Your task to perform on an android device: toggle javascript in the chrome app Image 0: 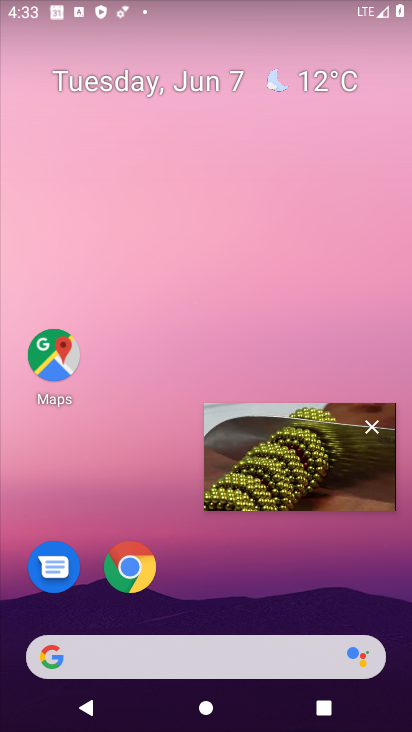
Step 0: click (369, 430)
Your task to perform on an android device: toggle javascript in the chrome app Image 1: 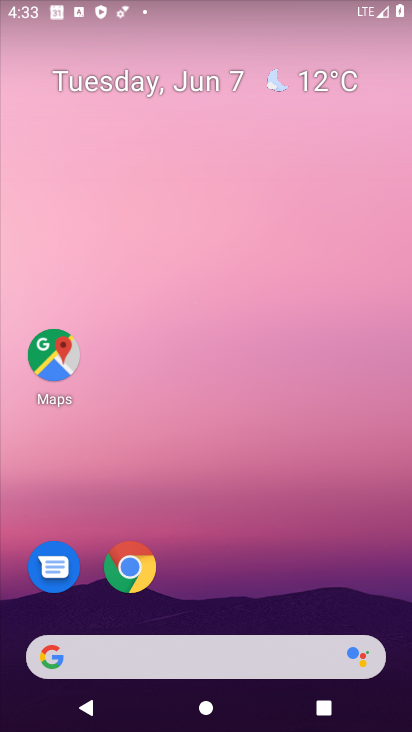
Step 1: drag from (318, 642) to (318, 45)
Your task to perform on an android device: toggle javascript in the chrome app Image 2: 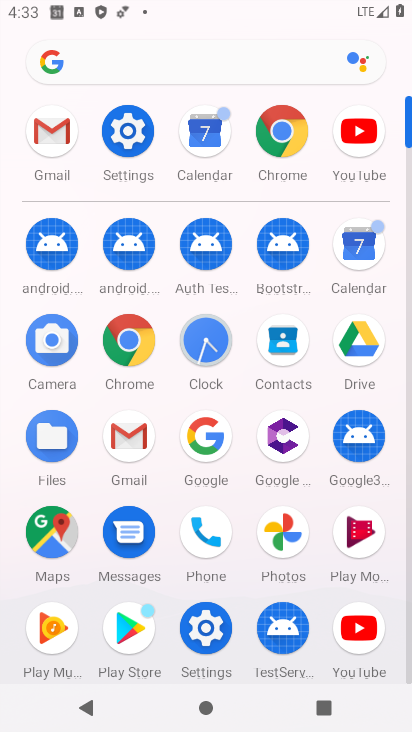
Step 2: click (130, 351)
Your task to perform on an android device: toggle javascript in the chrome app Image 3: 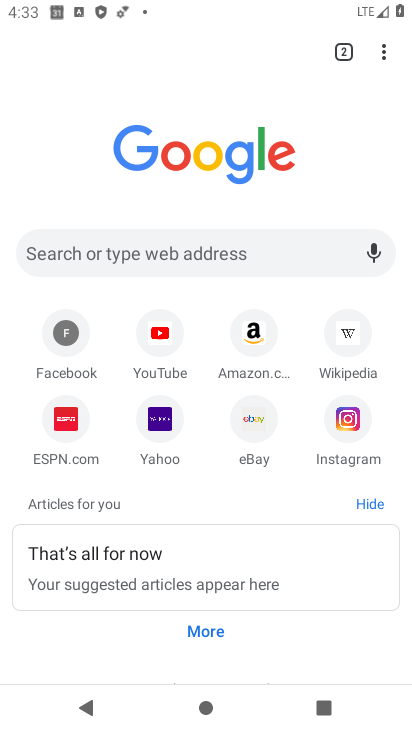
Step 3: drag from (384, 49) to (249, 440)
Your task to perform on an android device: toggle javascript in the chrome app Image 4: 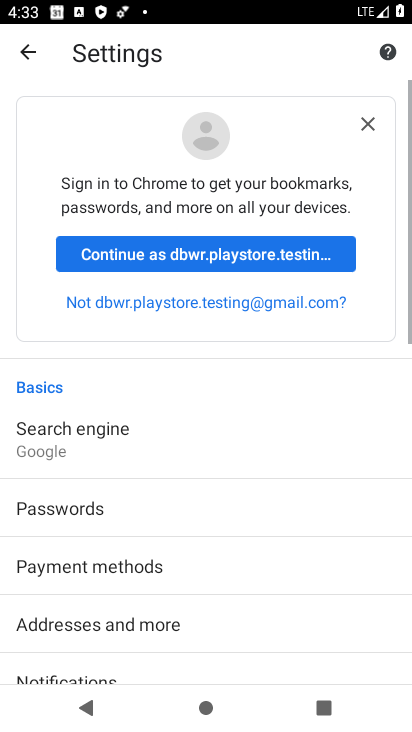
Step 4: drag from (185, 652) to (276, 305)
Your task to perform on an android device: toggle javascript in the chrome app Image 5: 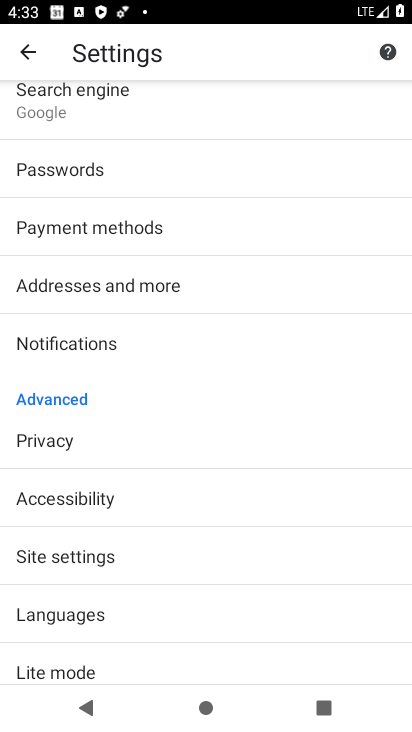
Step 5: click (121, 552)
Your task to perform on an android device: toggle javascript in the chrome app Image 6: 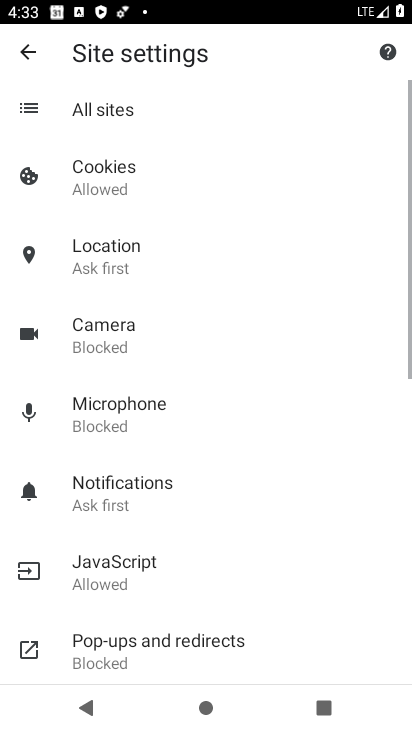
Step 6: click (133, 579)
Your task to perform on an android device: toggle javascript in the chrome app Image 7: 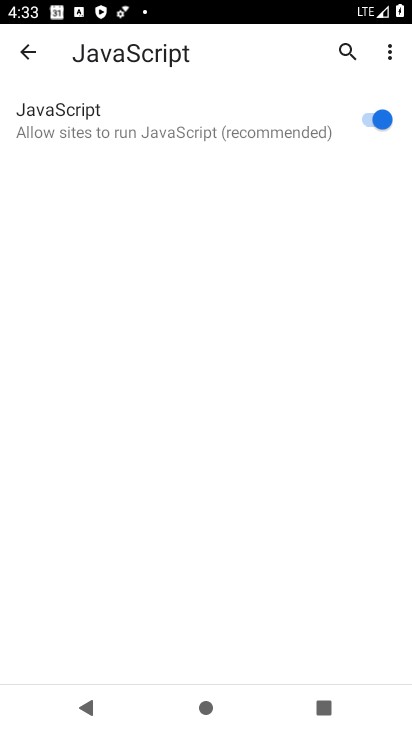
Step 7: click (362, 121)
Your task to perform on an android device: toggle javascript in the chrome app Image 8: 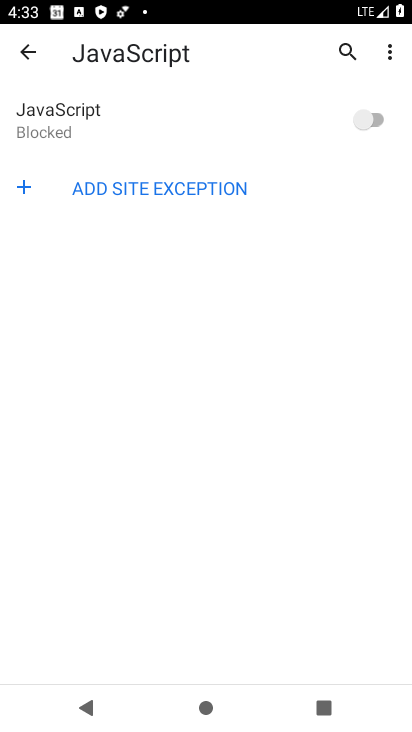
Step 8: task complete